Your task to perform on an android device: turn on wifi Image 0: 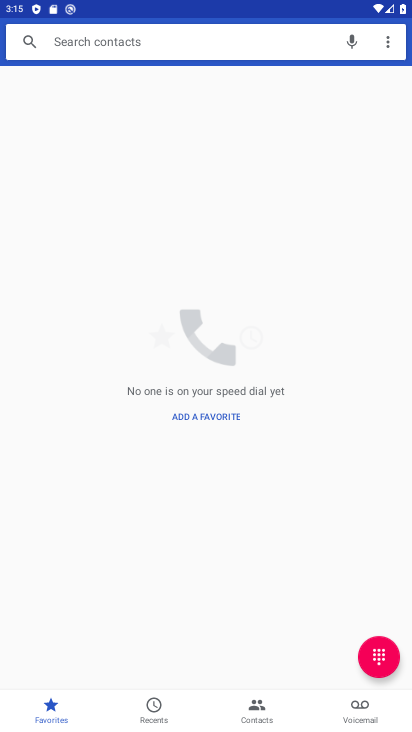
Step 0: press home button
Your task to perform on an android device: turn on wifi Image 1: 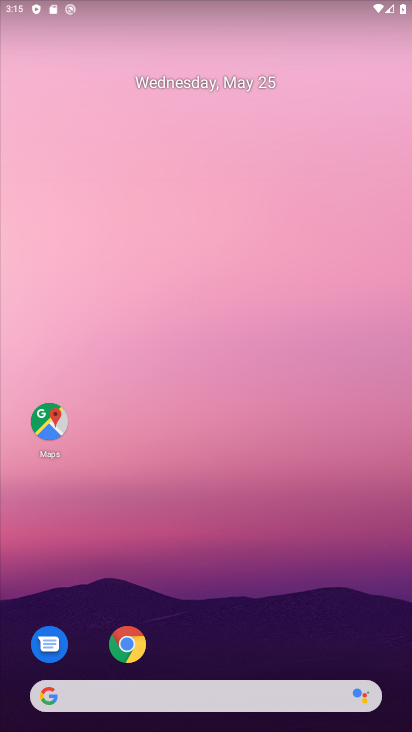
Step 1: drag from (250, 659) to (249, 13)
Your task to perform on an android device: turn on wifi Image 2: 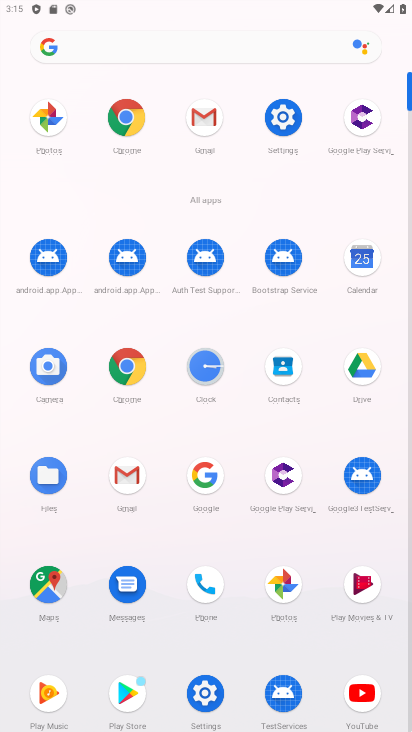
Step 2: click (282, 115)
Your task to perform on an android device: turn on wifi Image 3: 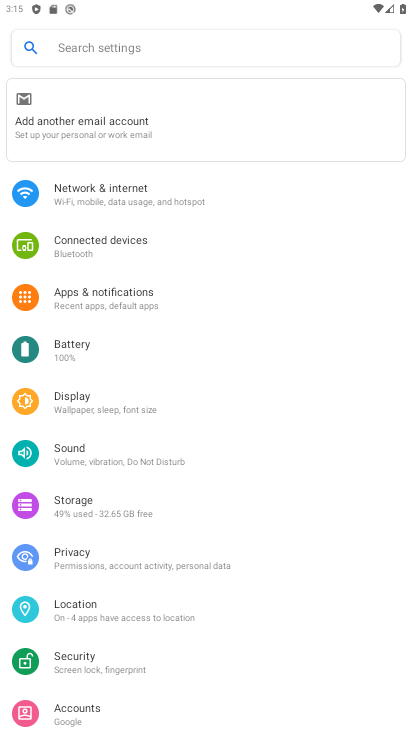
Step 3: click (85, 192)
Your task to perform on an android device: turn on wifi Image 4: 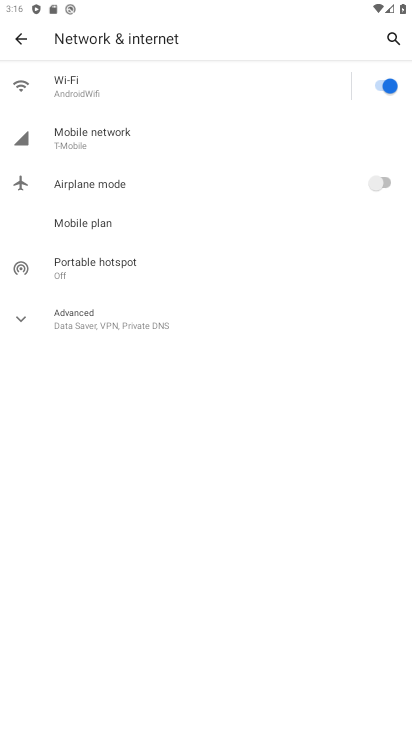
Step 4: task complete